Your task to perform on an android device: Search for Italian restaurants on Maps Image 0: 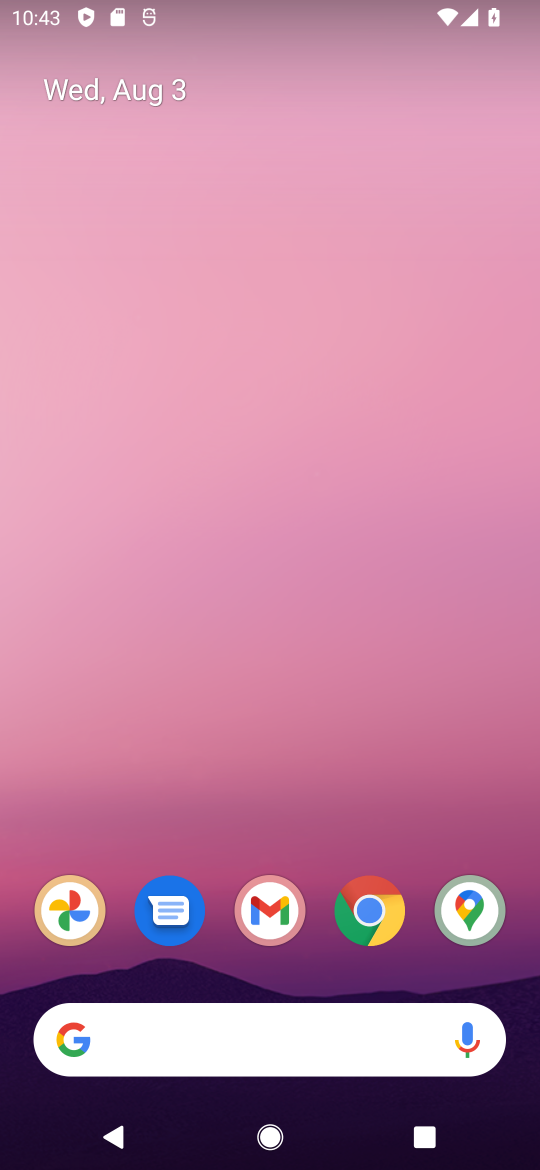
Step 0: press home button
Your task to perform on an android device: Search for Italian restaurants on Maps Image 1: 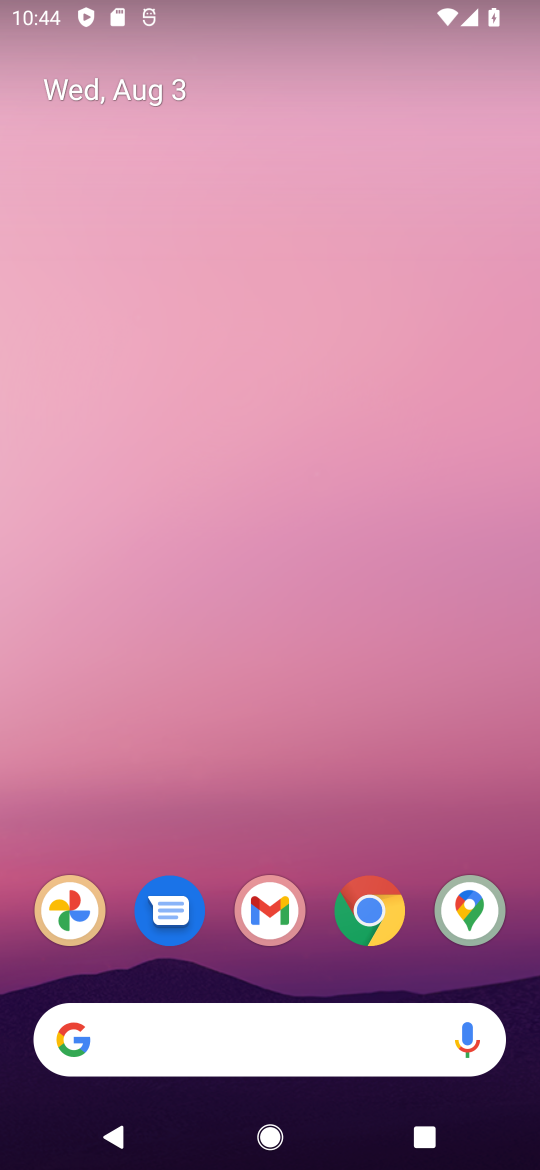
Step 1: drag from (249, 964) to (269, 216)
Your task to perform on an android device: Search for Italian restaurants on Maps Image 2: 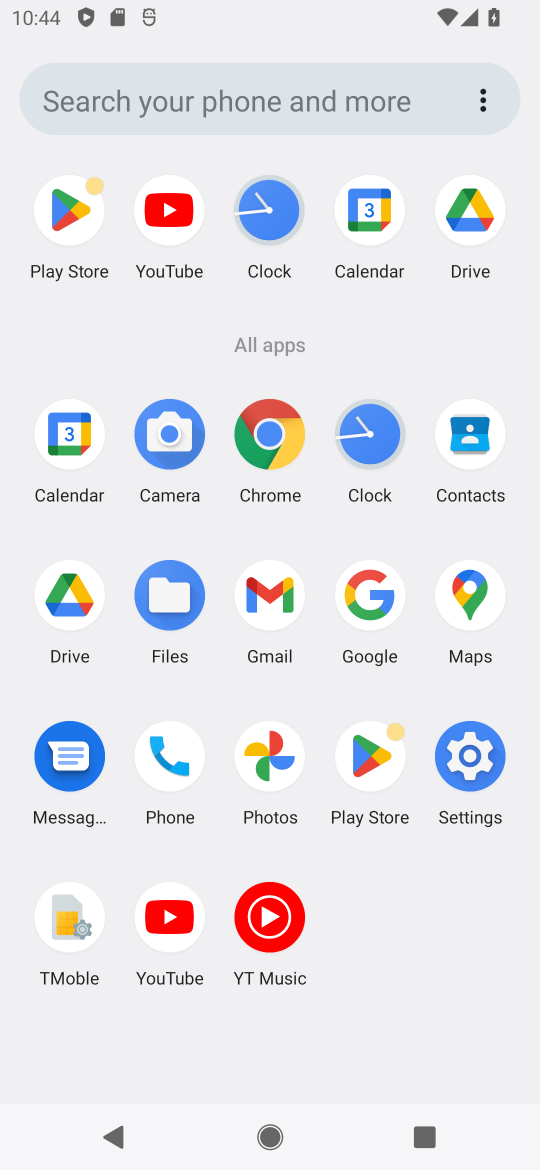
Step 2: click (474, 581)
Your task to perform on an android device: Search for Italian restaurants on Maps Image 3: 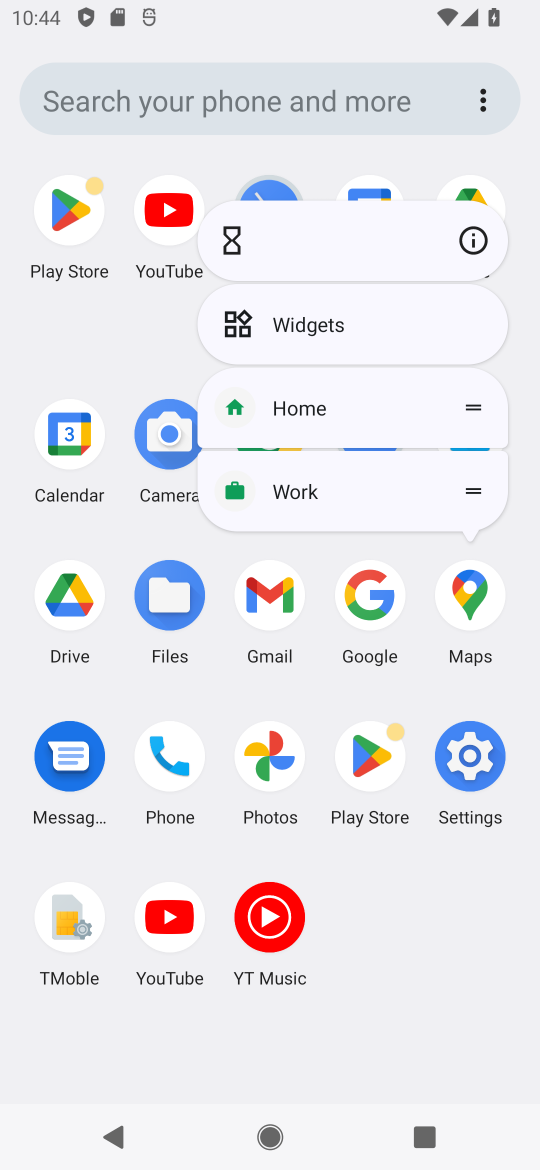
Step 3: click (466, 577)
Your task to perform on an android device: Search for Italian restaurants on Maps Image 4: 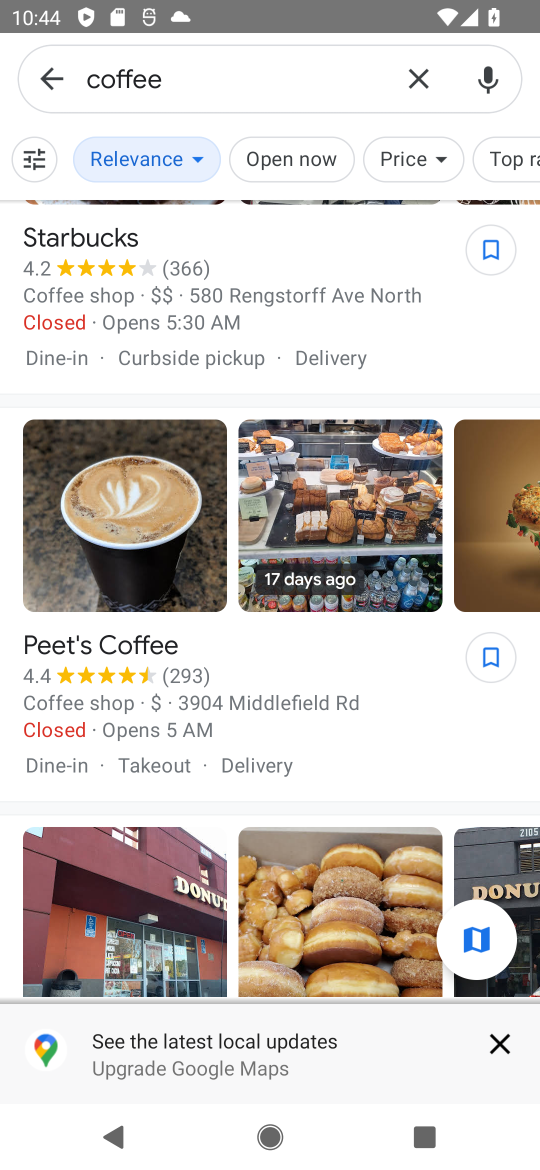
Step 4: click (425, 64)
Your task to perform on an android device: Search for Italian restaurants on Maps Image 5: 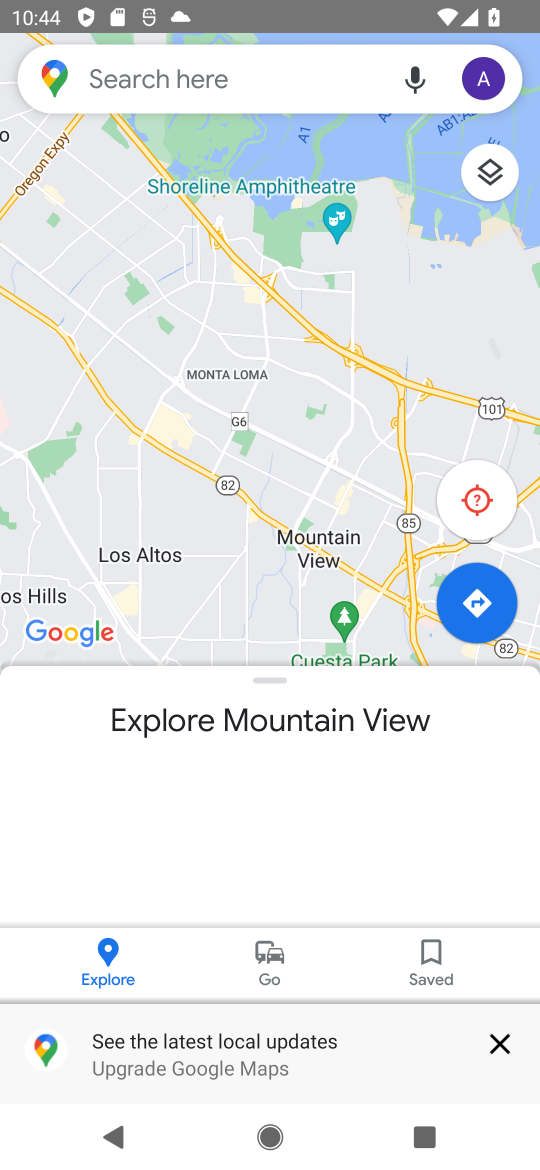
Step 5: click (149, 85)
Your task to perform on an android device: Search for Italian restaurants on Maps Image 6: 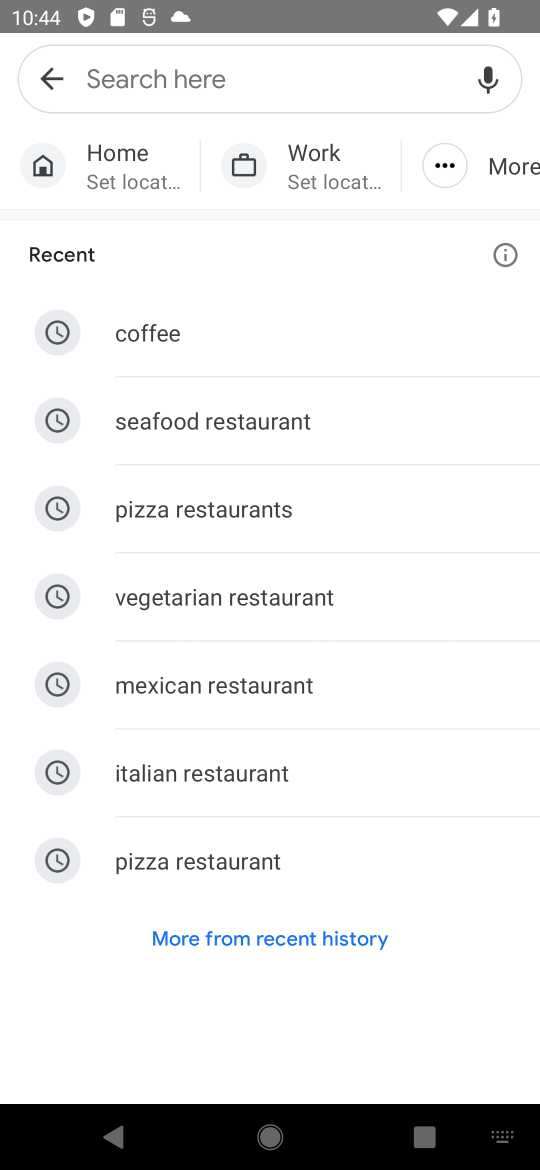
Step 6: type "ita"
Your task to perform on an android device: Search for Italian restaurants on Maps Image 7: 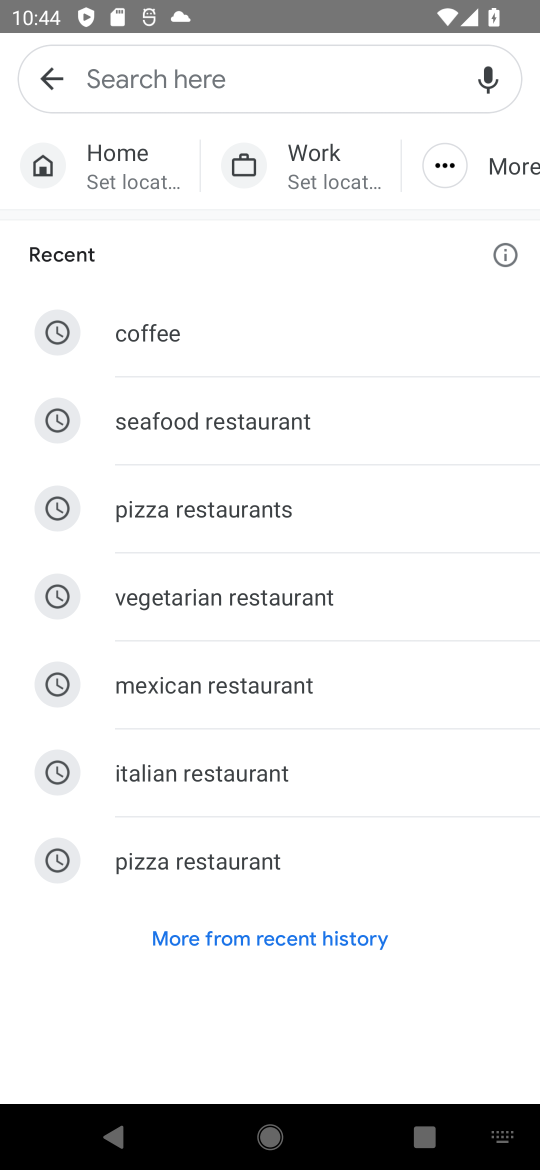
Step 7: click (127, 772)
Your task to perform on an android device: Search for Italian restaurants on Maps Image 8: 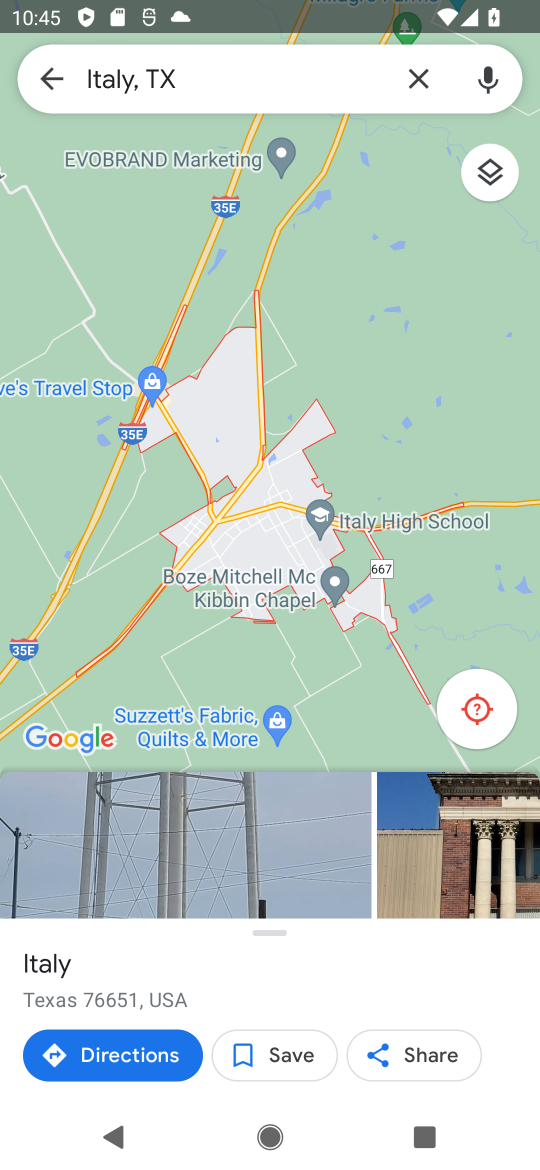
Step 8: click (420, 80)
Your task to perform on an android device: Search for Italian restaurants on Maps Image 9: 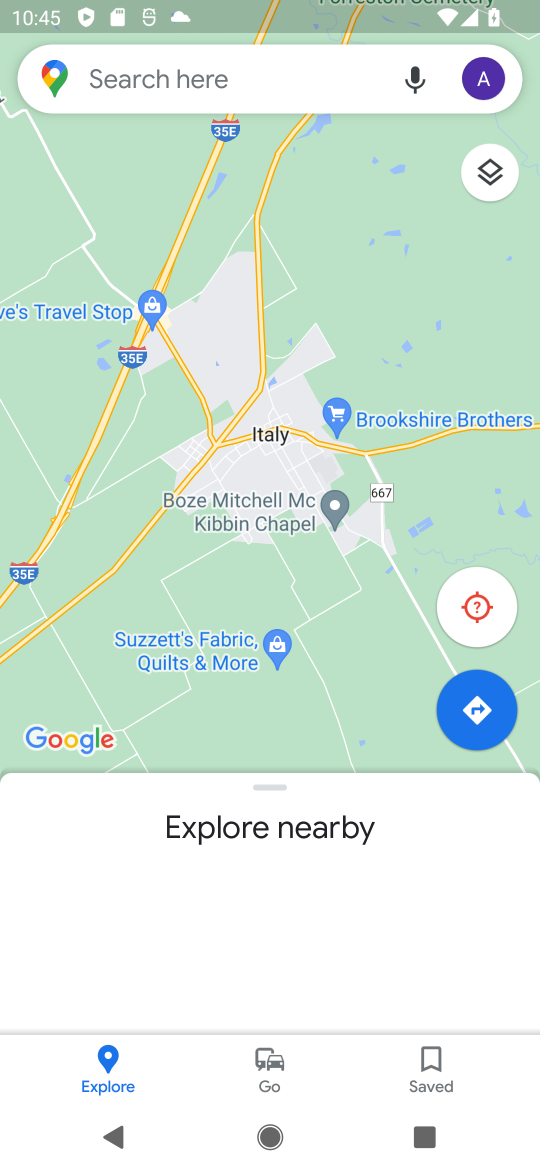
Step 9: click (110, 85)
Your task to perform on an android device: Search for Italian restaurants on Maps Image 10: 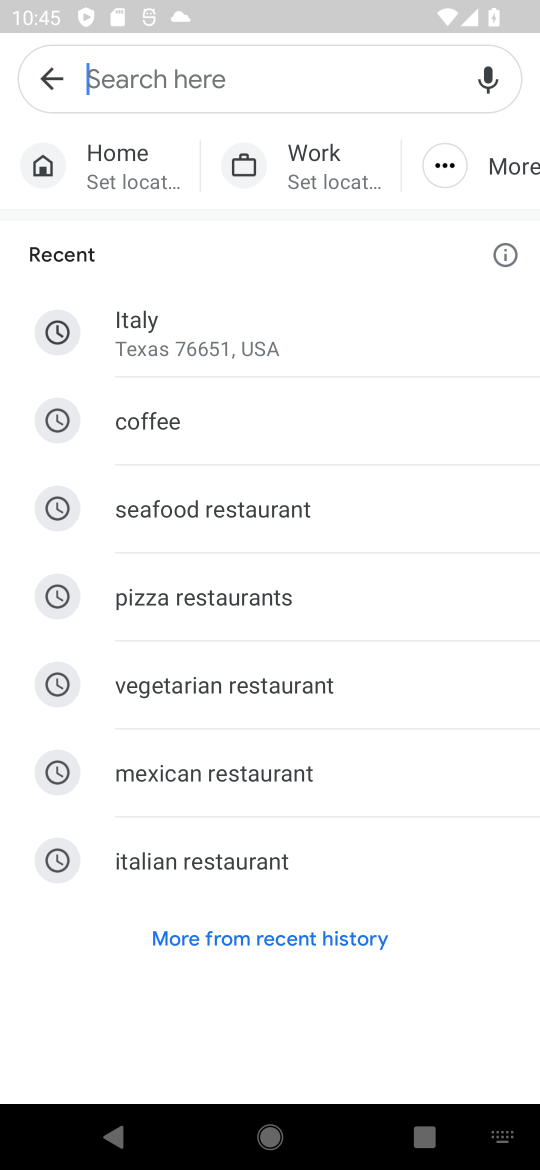
Step 10: click (197, 859)
Your task to perform on an android device: Search for Italian restaurants on Maps Image 11: 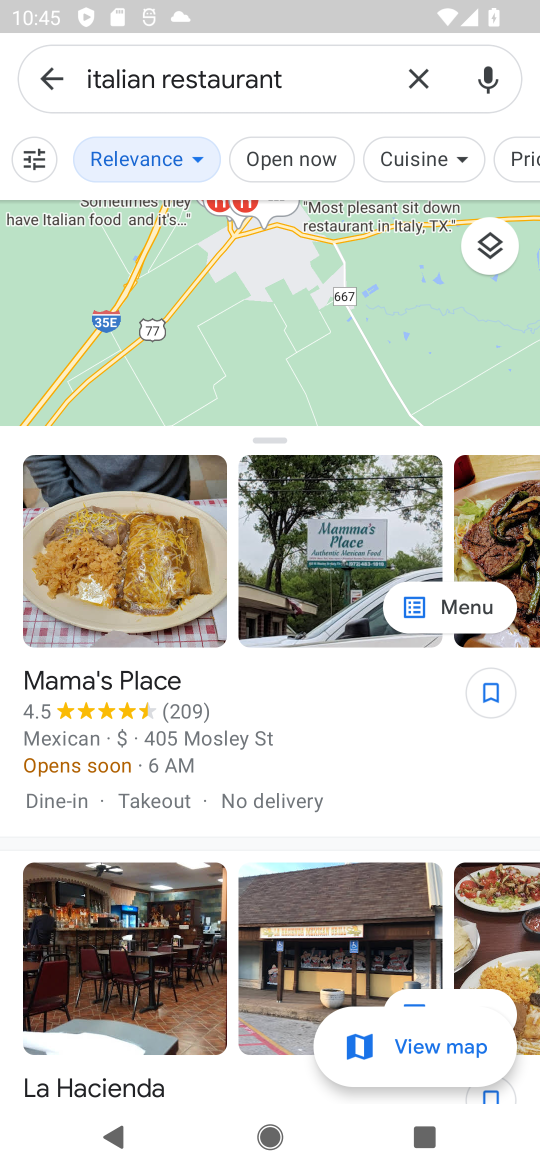
Step 11: task complete